Your task to perform on an android device: Play the last video I watched on Youtube Image 0: 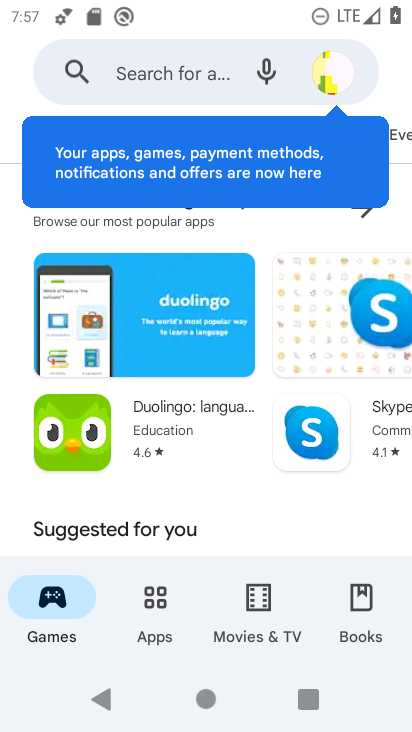
Step 0: press home button
Your task to perform on an android device: Play the last video I watched on Youtube Image 1: 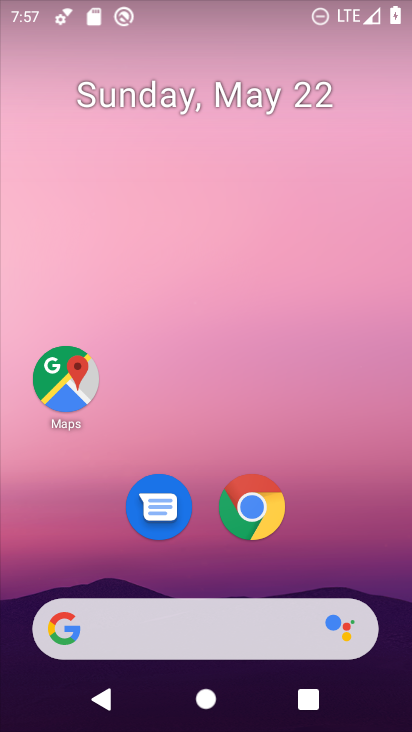
Step 1: drag from (157, 631) to (114, 9)
Your task to perform on an android device: Play the last video I watched on Youtube Image 2: 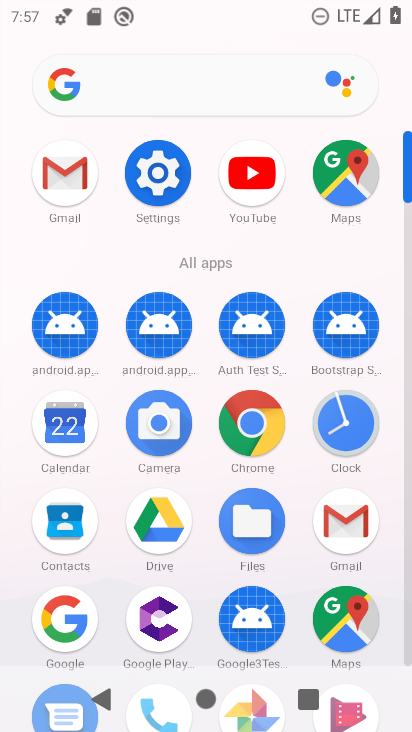
Step 2: drag from (206, 572) to (142, 9)
Your task to perform on an android device: Play the last video I watched on Youtube Image 3: 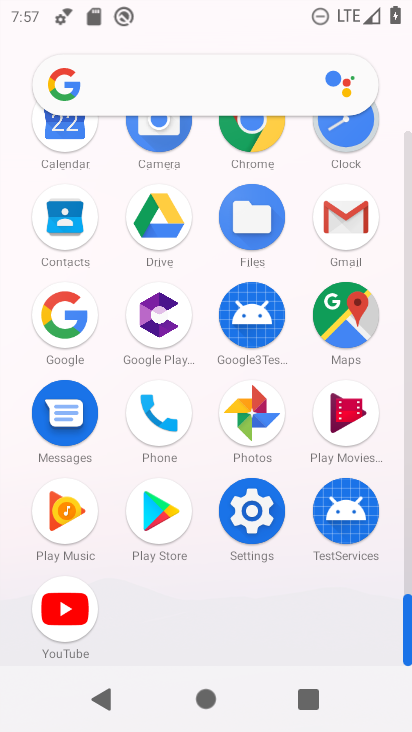
Step 3: click (40, 603)
Your task to perform on an android device: Play the last video I watched on Youtube Image 4: 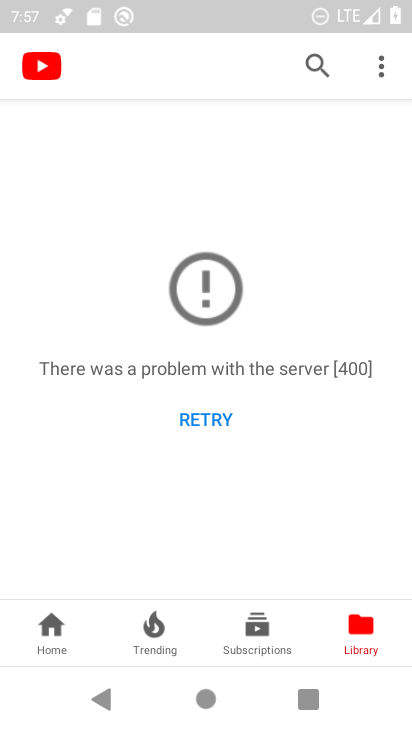
Step 4: click (371, 631)
Your task to perform on an android device: Play the last video I watched on Youtube Image 5: 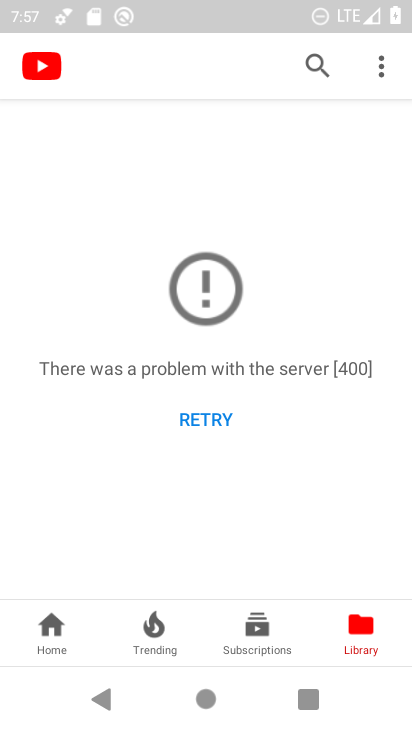
Step 5: task complete